Your task to perform on an android device: delete location history Image 0: 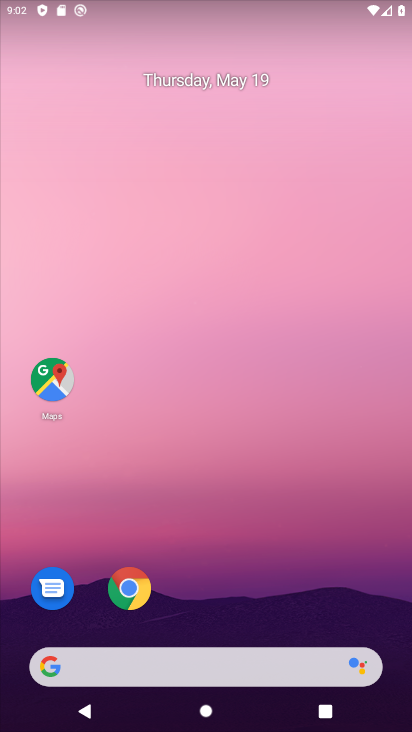
Step 0: drag from (245, 491) to (289, 92)
Your task to perform on an android device: delete location history Image 1: 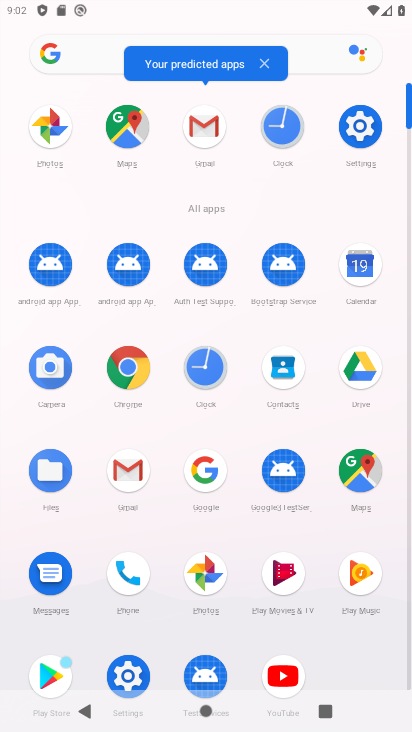
Step 1: click (366, 127)
Your task to perform on an android device: delete location history Image 2: 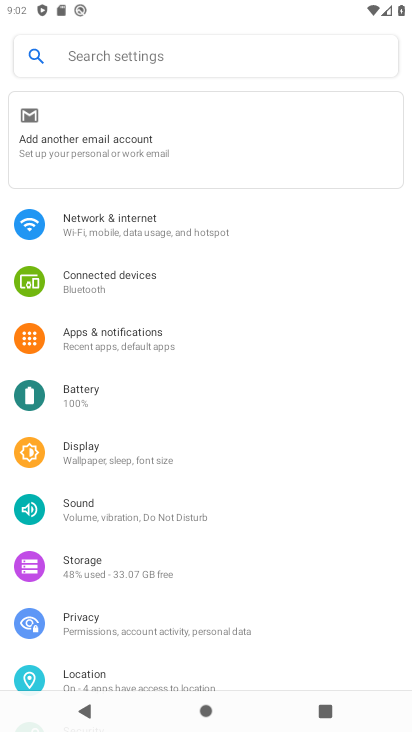
Step 2: drag from (142, 626) to (162, 437)
Your task to perform on an android device: delete location history Image 3: 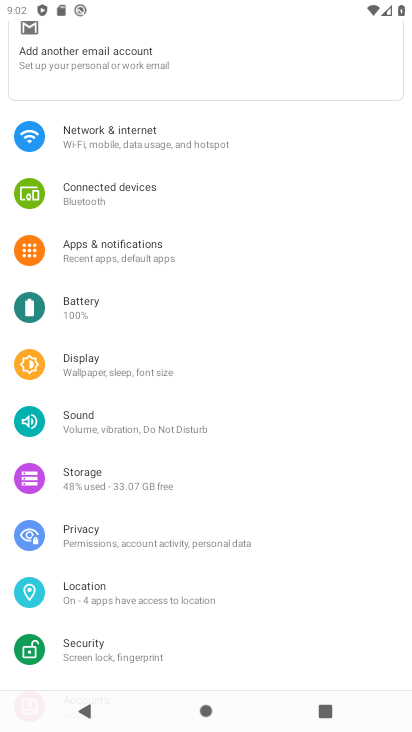
Step 3: click (102, 584)
Your task to perform on an android device: delete location history Image 4: 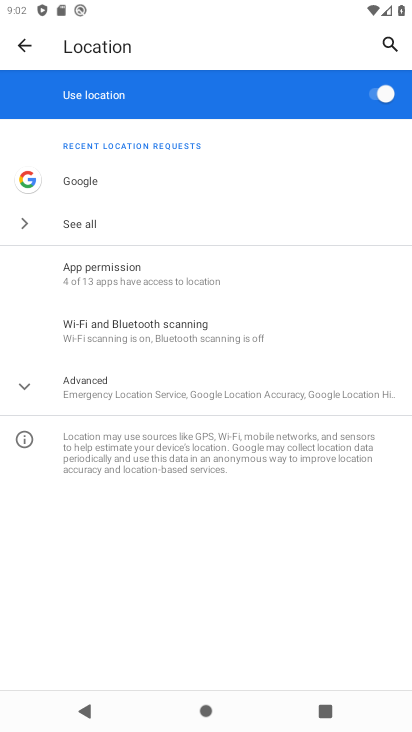
Step 4: click (29, 388)
Your task to perform on an android device: delete location history Image 5: 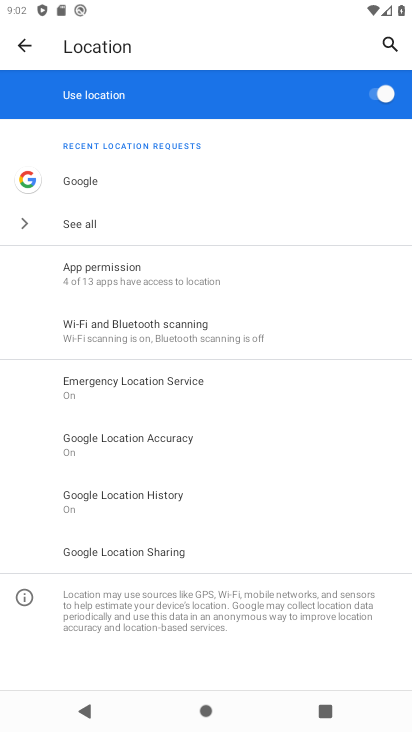
Step 5: click (186, 493)
Your task to perform on an android device: delete location history Image 6: 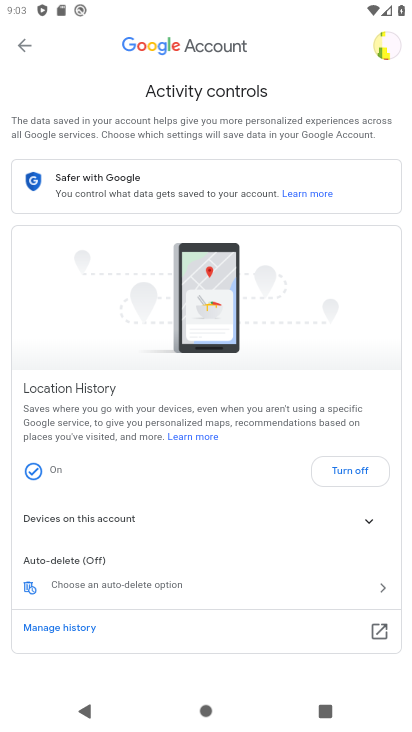
Step 6: drag from (186, 598) to (231, 329)
Your task to perform on an android device: delete location history Image 7: 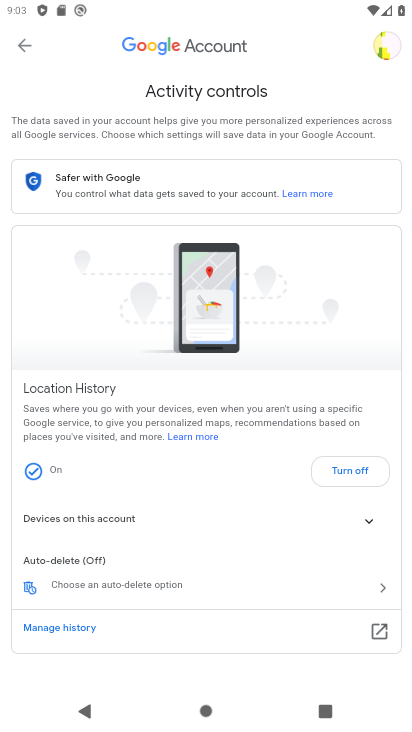
Step 7: click (89, 585)
Your task to perform on an android device: delete location history Image 8: 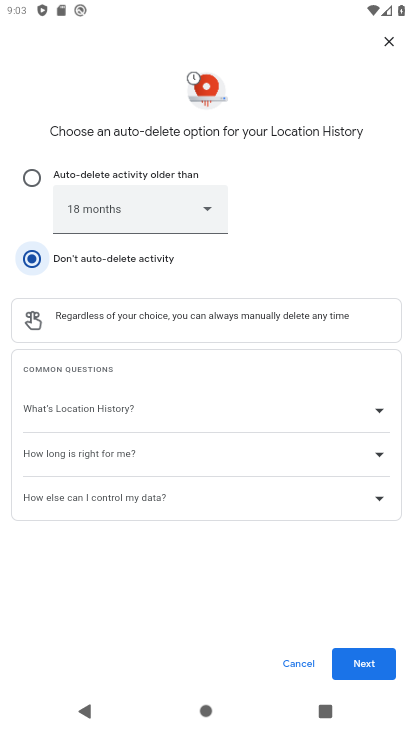
Step 8: click (367, 668)
Your task to perform on an android device: delete location history Image 9: 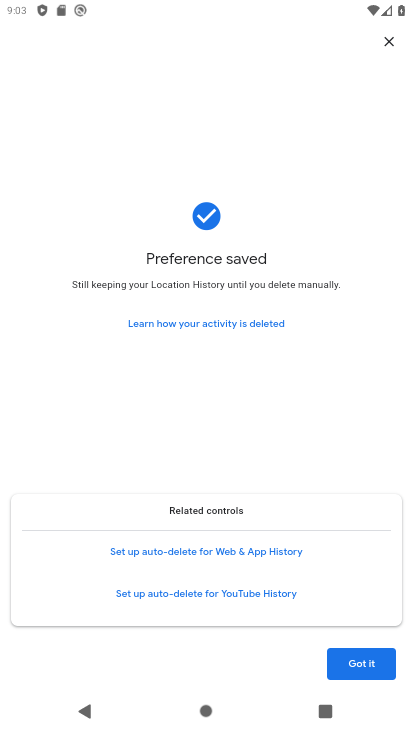
Step 9: click (356, 665)
Your task to perform on an android device: delete location history Image 10: 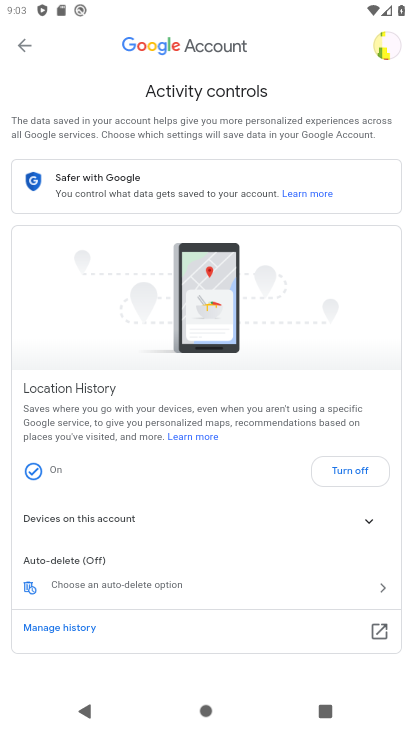
Step 10: task complete